Your task to perform on an android device: Go to calendar. Show me events next week Image 0: 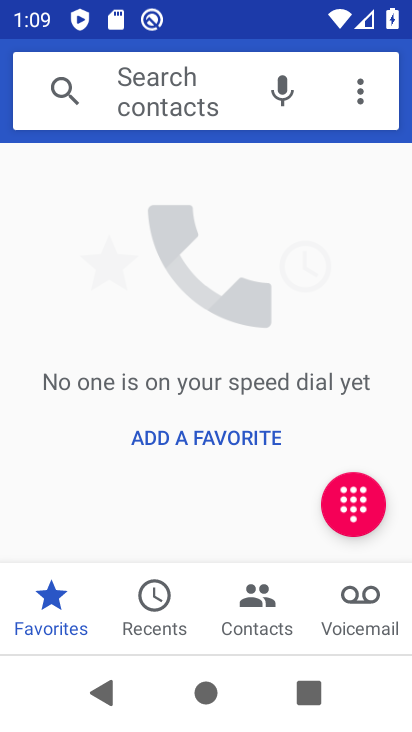
Step 0: press back button
Your task to perform on an android device: Go to calendar. Show me events next week Image 1: 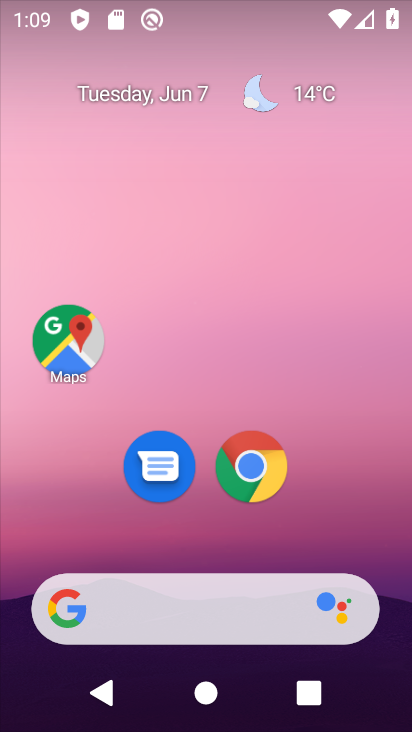
Step 1: drag from (207, 560) to (274, 102)
Your task to perform on an android device: Go to calendar. Show me events next week Image 2: 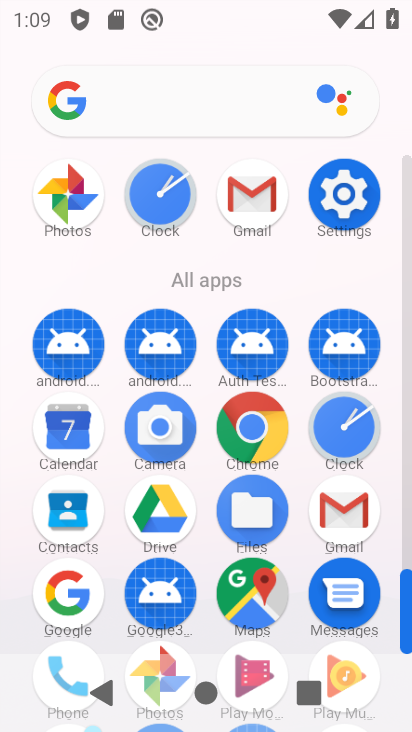
Step 2: click (58, 431)
Your task to perform on an android device: Go to calendar. Show me events next week Image 3: 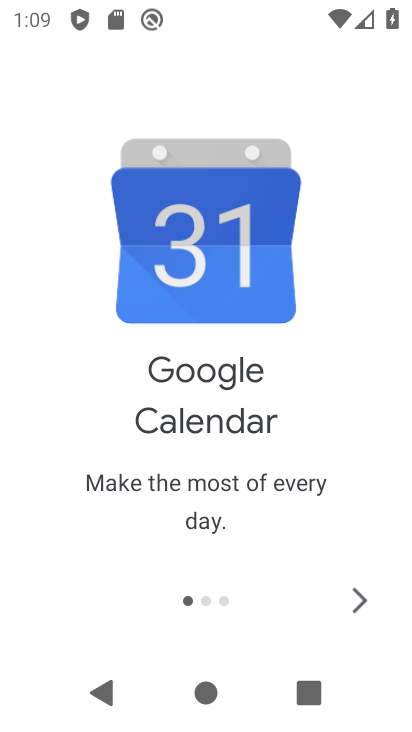
Step 3: click (357, 620)
Your task to perform on an android device: Go to calendar. Show me events next week Image 4: 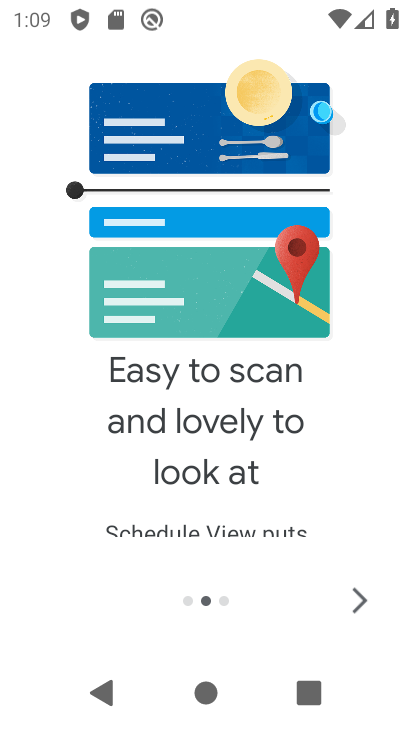
Step 4: click (359, 599)
Your task to perform on an android device: Go to calendar. Show me events next week Image 5: 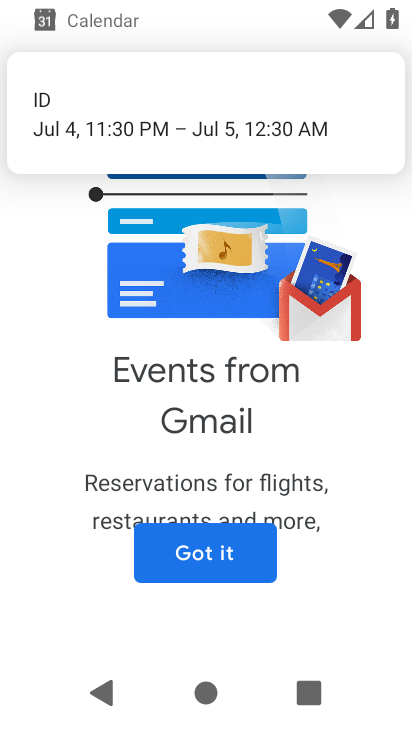
Step 5: click (185, 532)
Your task to perform on an android device: Go to calendar. Show me events next week Image 6: 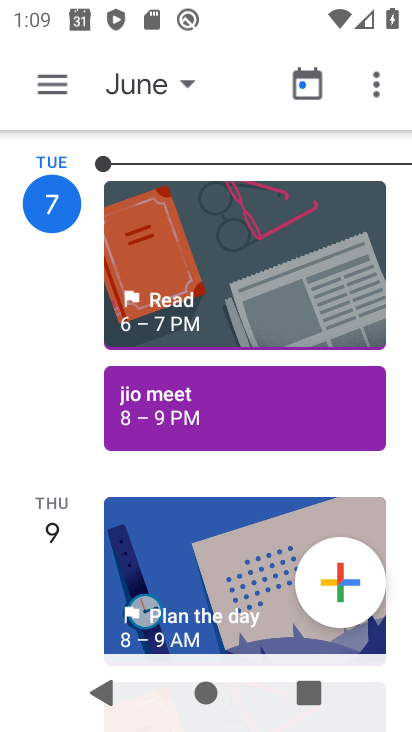
Step 6: drag from (127, 148) to (192, 17)
Your task to perform on an android device: Go to calendar. Show me events next week Image 7: 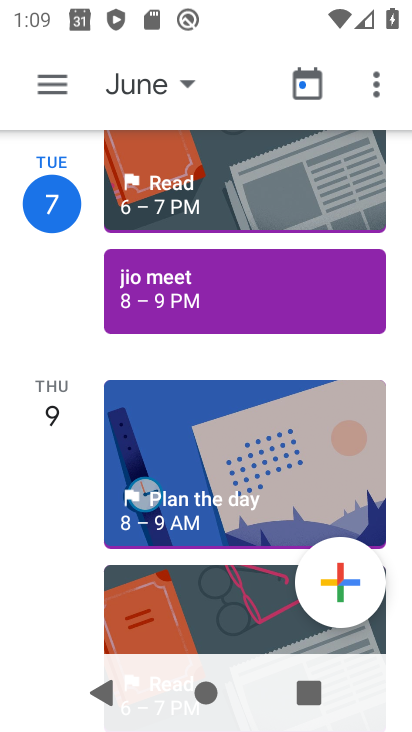
Step 7: drag from (198, 197) to (247, 535)
Your task to perform on an android device: Go to calendar. Show me events next week Image 8: 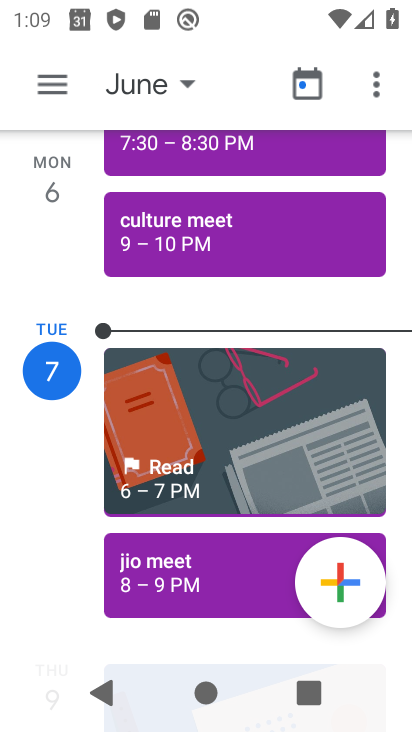
Step 8: click (162, 83)
Your task to perform on an android device: Go to calendar. Show me events next week Image 9: 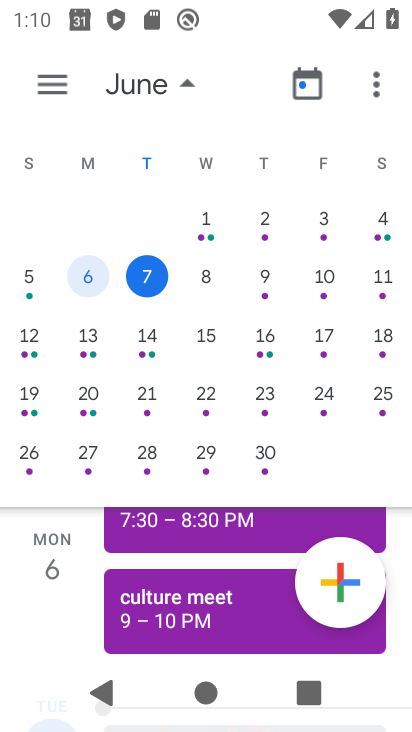
Step 9: drag from (362, 361) to (56, 354)
Your task to perform on an android device: Go to calendar. Show me events next week Image 10: 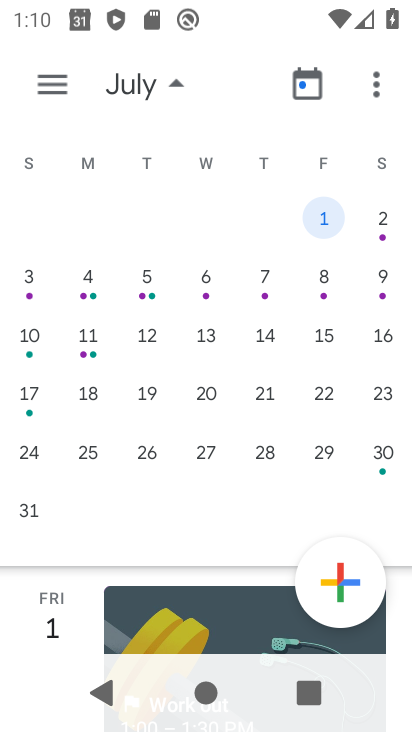
Step 10: drag from (79, 367) to (327, 375)
Your task to perform on an android device: Go to calendar. Show me events next week Image 11: 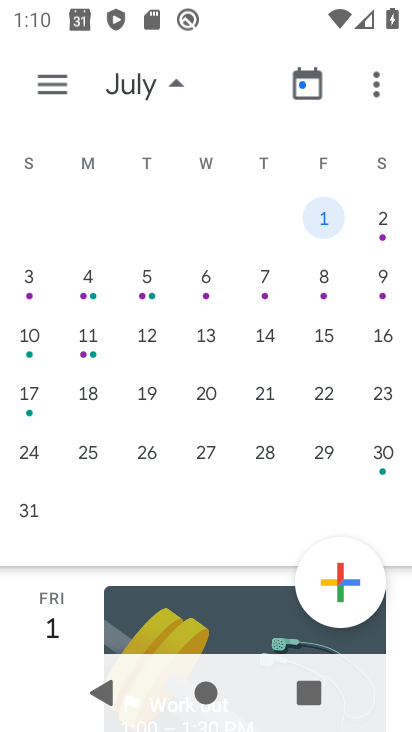
Step 11: drag from (43, 374) to (365, 354)
Your task to perform on an android device: Go to calendar. Show me events next week Image 12: 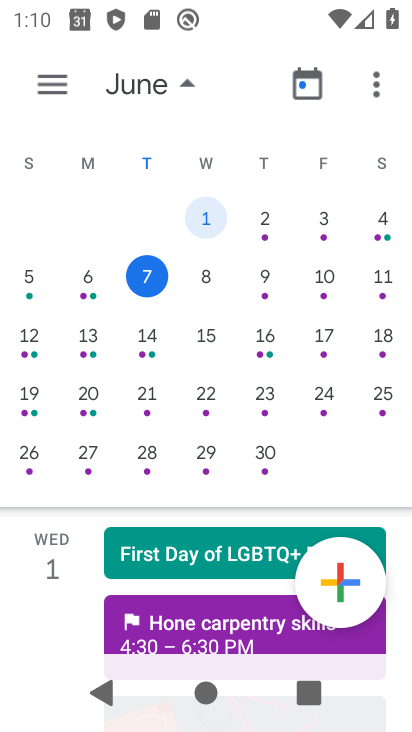
Step 12: click (92, 330)
Your task to perform on an android device: Go to calendar. Show me events next week Image 13: 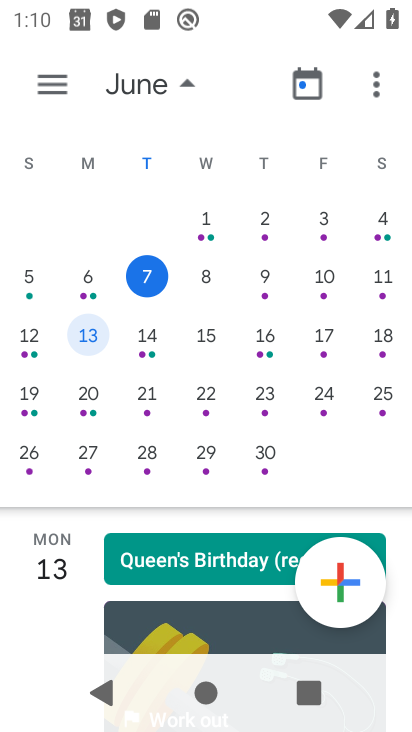
Step 13: drag from (220, 629) to (242, 324)
Your task to perform on an android device: Go to calendar. Show me events next week Image 14: 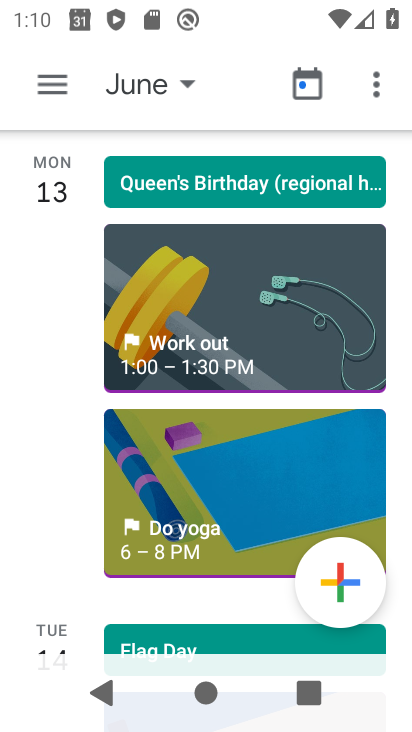
Step 14: click (150, 258)
Your task to perform on an android device: Go to calendar. Show me events next week Image 15: 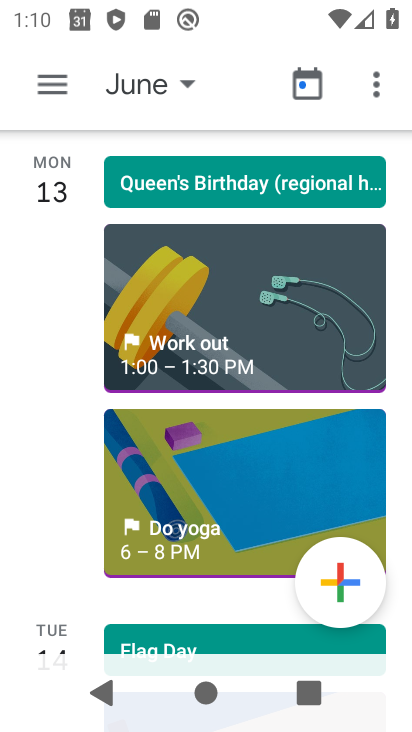
Step 15: click (190, 175)
Your task to perform on an android device: Go to calendar. Show me events next week Image 16: 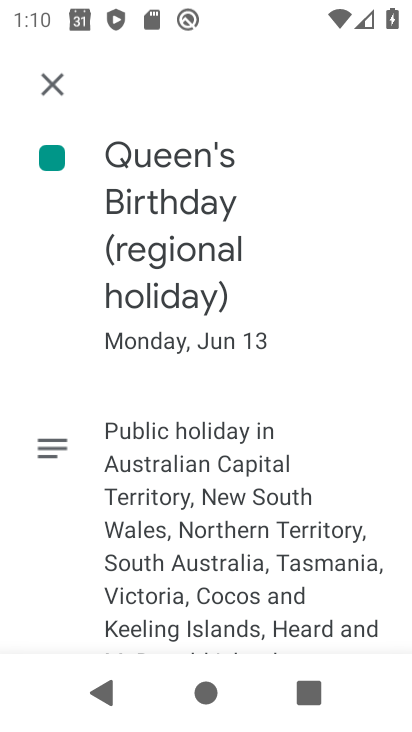
Step 16: task complete